Your task to perform on an android device: When is my next appointment? Image 0: 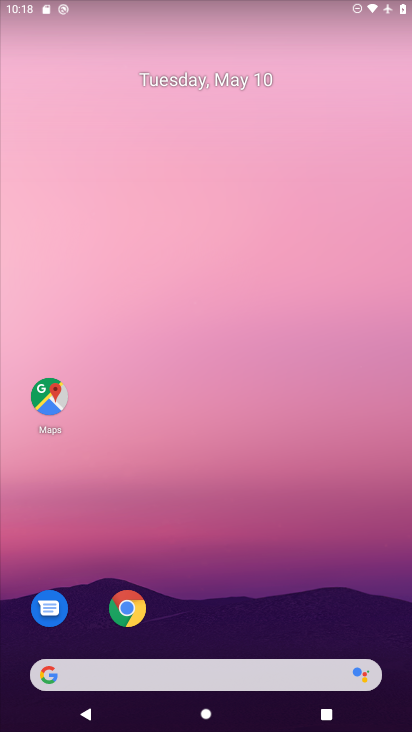
Step 0: drag from (294, 596) to (296, 284)
Your task to perform on an android device: When is my next appointment? Image 1: 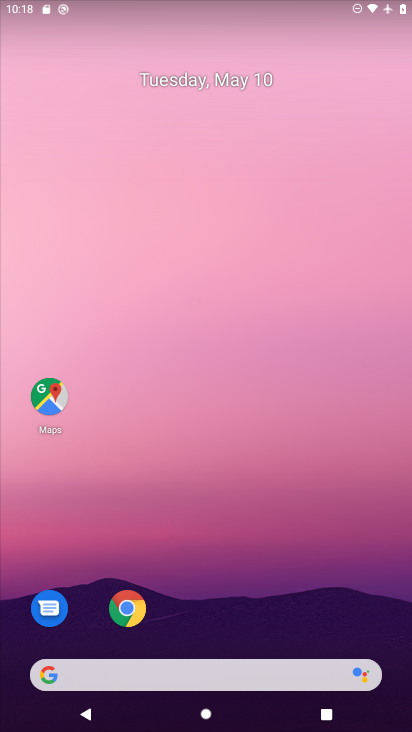
Step 1: drag from (262, 632) to (259, 224)
Your task to perform on an android device: When is my next appointment? Image 2: 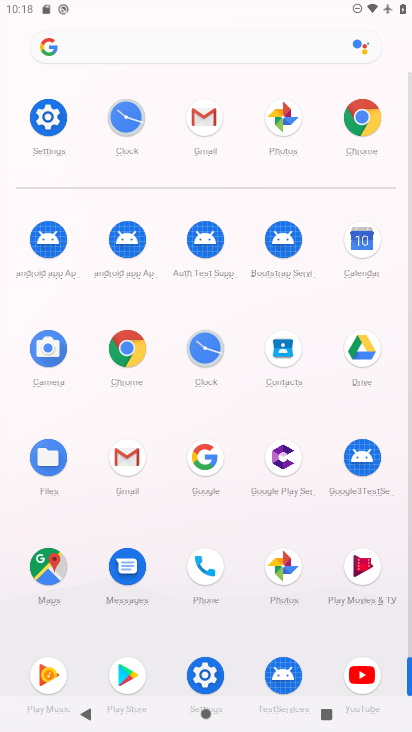
Step 2: click (356, 230)
Your task to perform on an android device: When is my next appointment? Image 3: 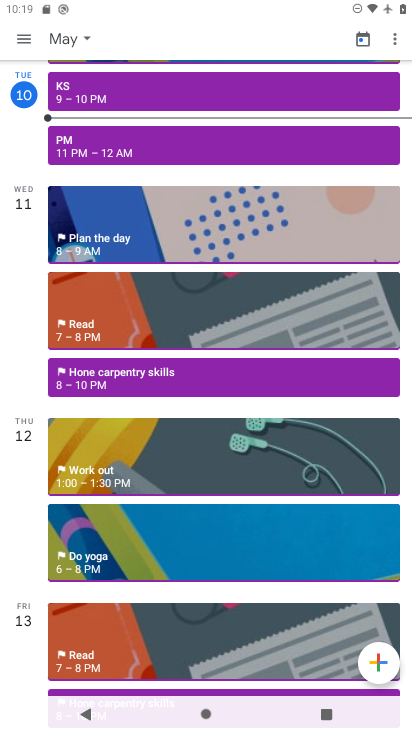
Step 3: task complete